Your task to perform on an android device: Open calendar and show me the second week of next month Image 0: 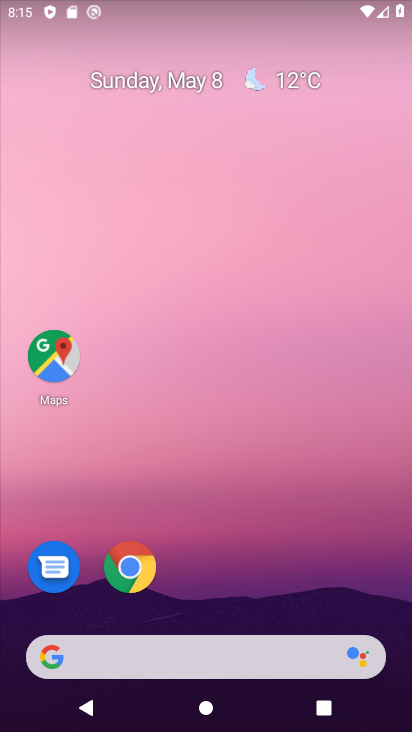
Step 0: drag from (360, 589) to (384, 142)
Your task to perform on an android device: Open calendar and show me the second week of next month Image 1: 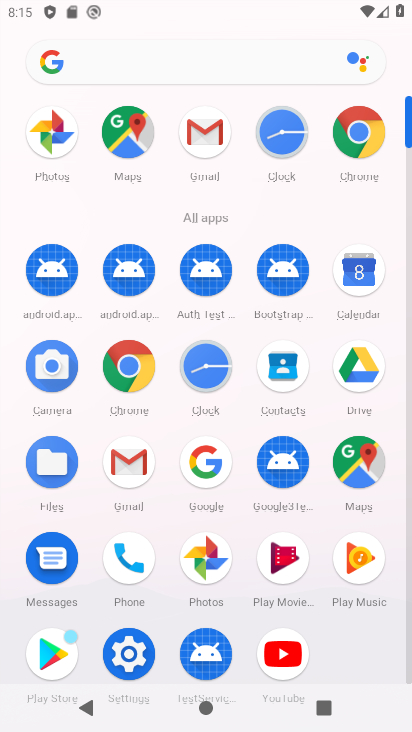
Step 1: click (372, 277)
Your task to perform on an android device: Open calendar and show me the second week of next month Image 2: 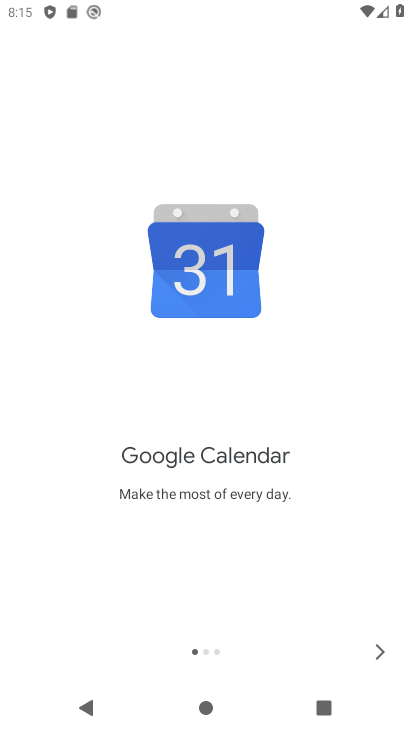
Step 2: click (373, 655)
Your task to perform on an android device: Open calendar and show me the second week of next month Image 3: 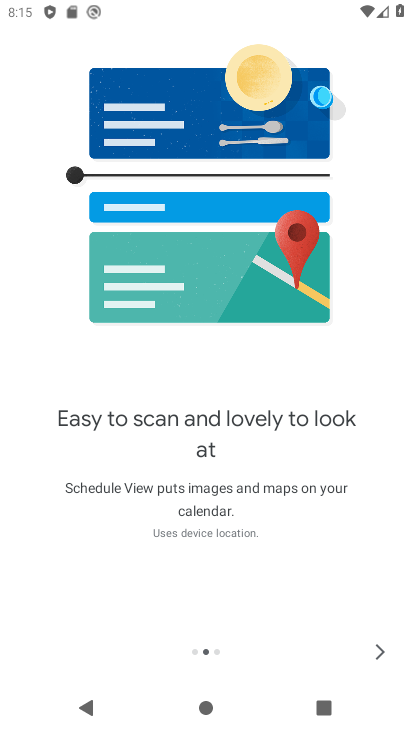
Step 3: click (377, 660)
Your task to perform on an android device: Open calendar and show me the second week of next month Image 4: 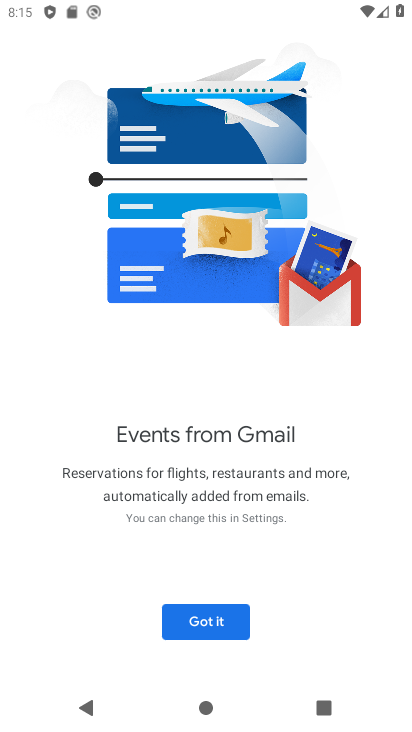
Step 4: click (214, 624)
Your task to perform on an android device: Open calendar and show me the second week of next month Image 5: 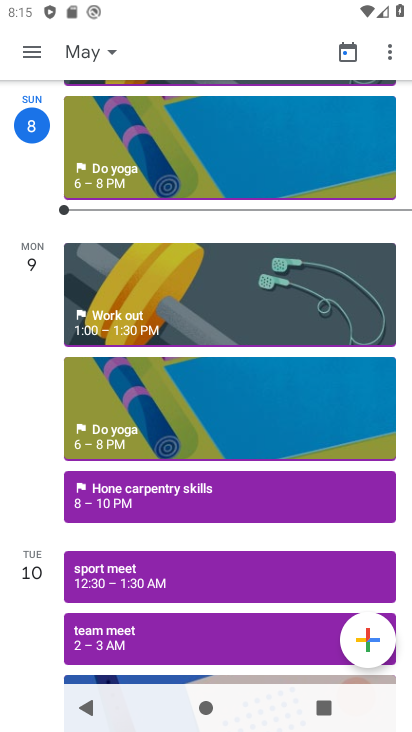
Step 5: click (86, 52)
Your task to perform on an android device: Open calendar and show me the second week of next month Image 6: 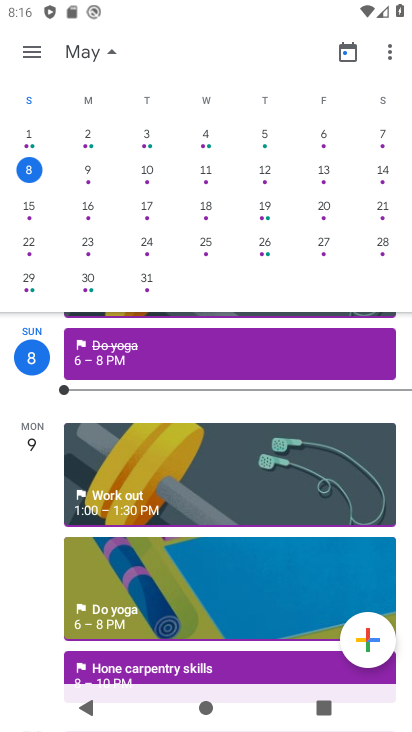
Step 6: drag from (354, 199) to (20, 293)
Your task to perform on an android device: Open calendar and show me the second week of next month Image 7: 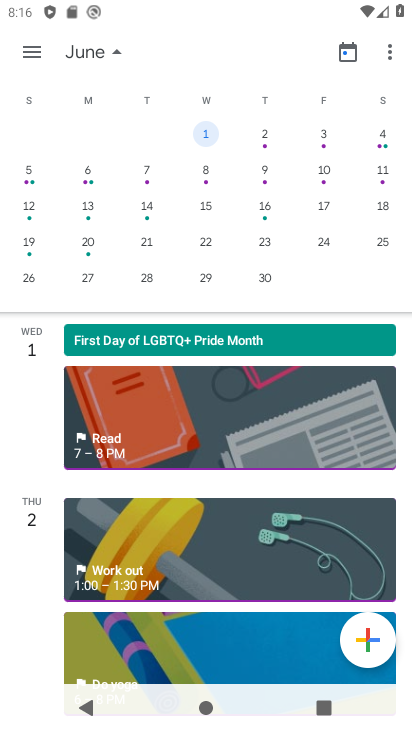
Step 7: click (140, 207)
Your task to perform on an android device: Open calendar and show me the second week of next month Image 8: 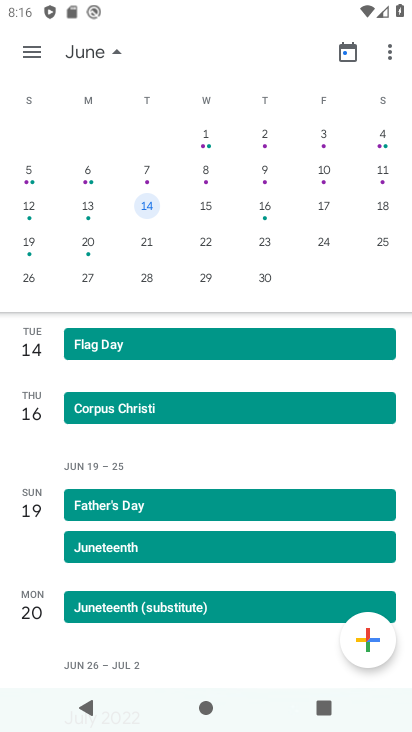
Step 8: task complete